Your task to perform on an android device: open a new tab in the chrome app Image 0: 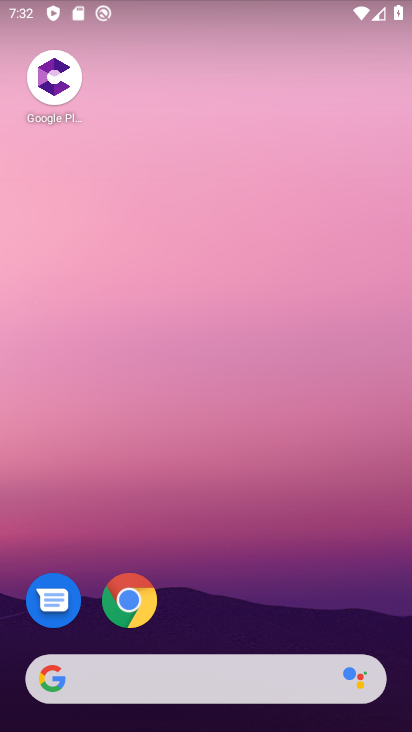
Step 0: drag from (197, 645) to (184, 103)
Your task to perform on an android device: open a new tab in the chrome app Image 1: 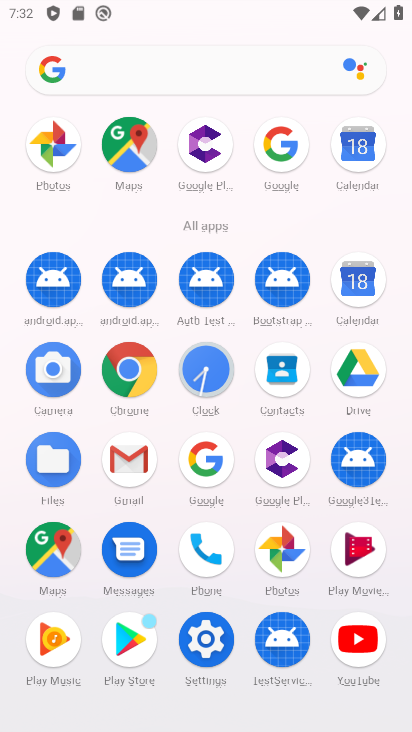
Step 1: click (130, 387)
Your task to perform on an android device: open a new tab in the chrome app Image 2: 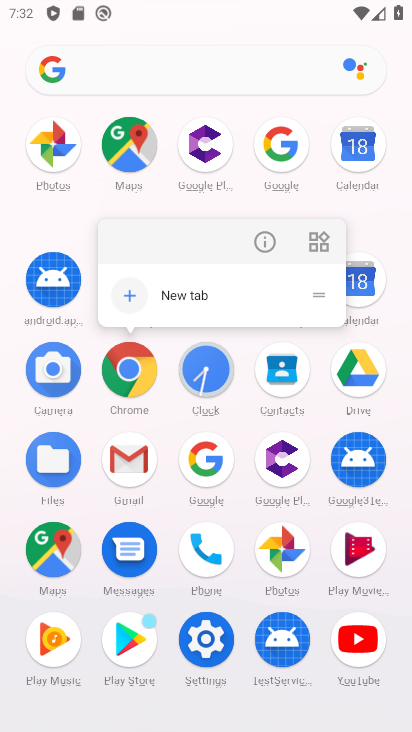
Step 2: click (133, 384)
Your task to perform on an android device: open a new tab in the chrome app Image 3: 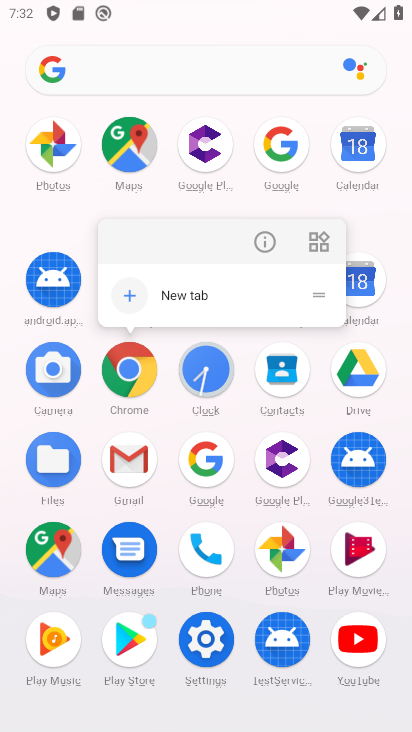
Step 3: click (133, 384)
Your task to perform on an android device: open a new tab in the chrome app Image 4: 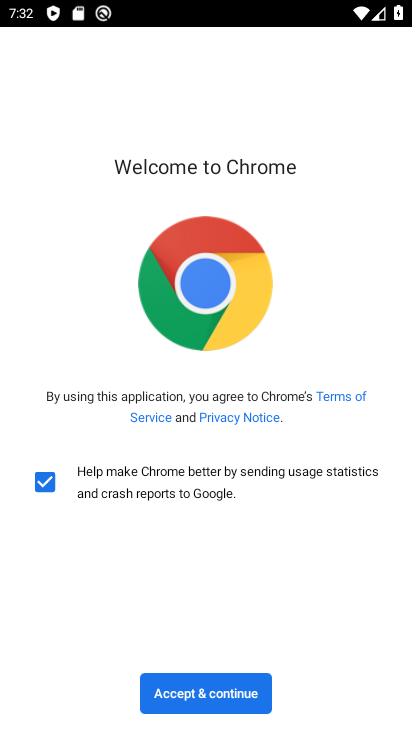
Step 4: click (169, 679)
Your task to perform on an android device: open a new tab in the chrome app Image 5: 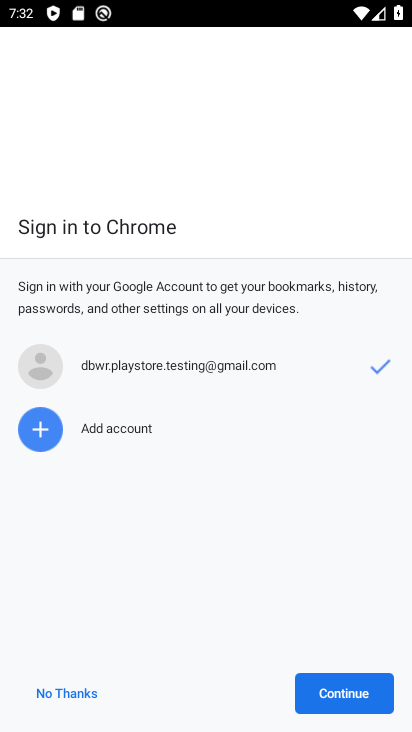
Step 5: click (341, 694)
Your task to perform on an android device: open a new tab in the chrome app Image 6: 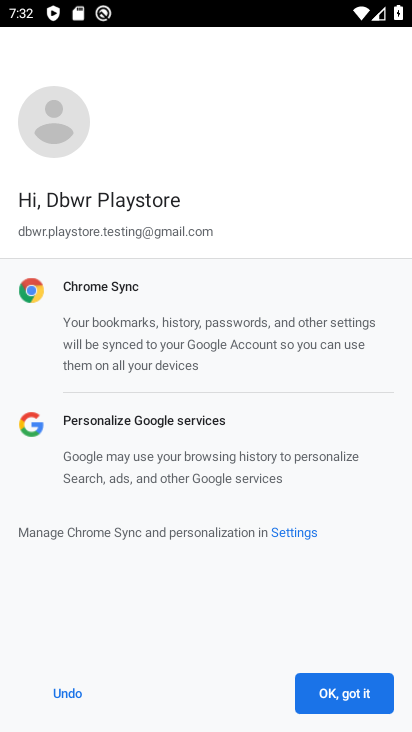
Step 6: click (305, 688)
Your task to perform on an android device: open a new tab in the chrome app Image 7: 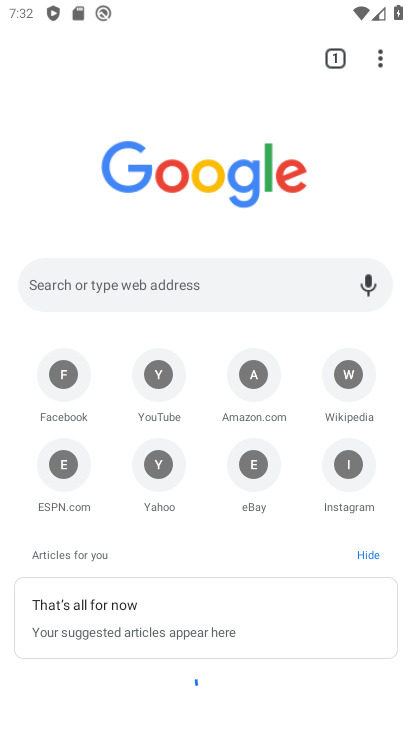
Step 7: click (334, 58)
Your task to perform on an android device: open a new tab in the chrome app Image 8: 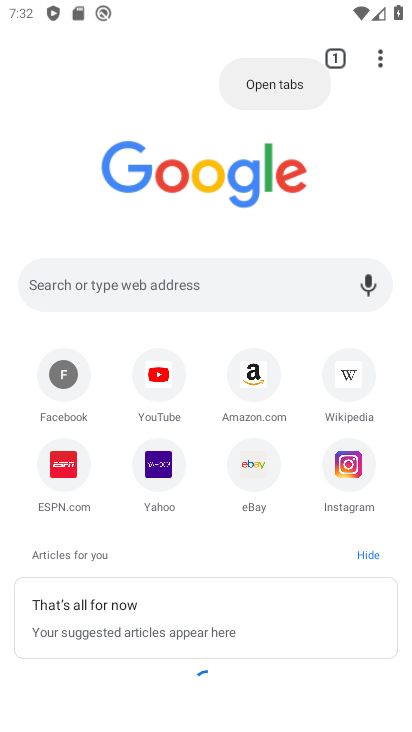
Step 8: click (335, 56)
Your task to perform on an android device: open a new tab in the chrome app Image 9: 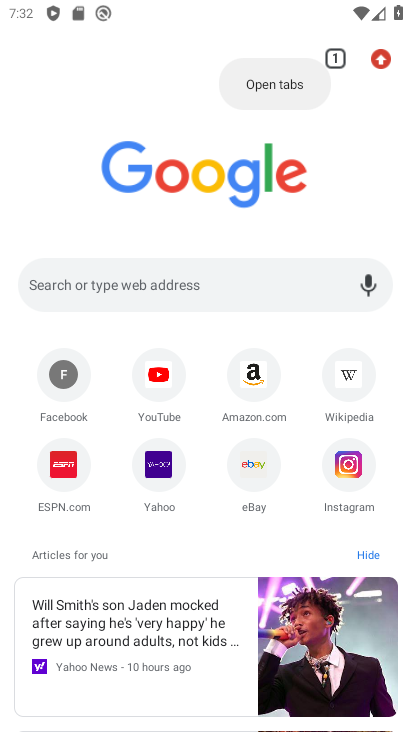
Step 9: click (332, 53)
Your task to perform on an android device: open a new tab in the chrome app Image 10: 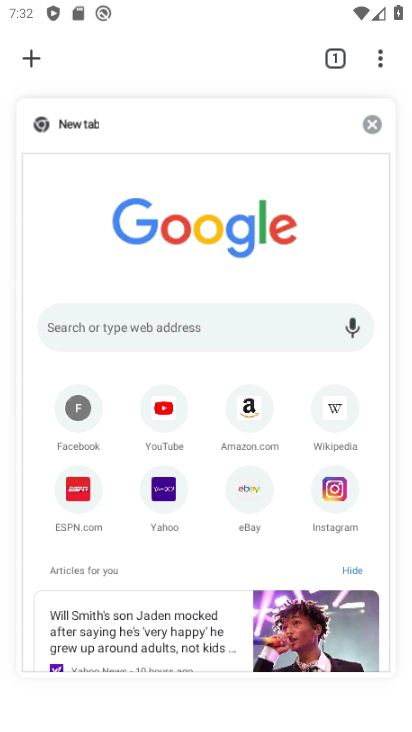
Step 10: click (27, 52)
Your task to perform on an android device: open a new tab in the chrome app Image 11: 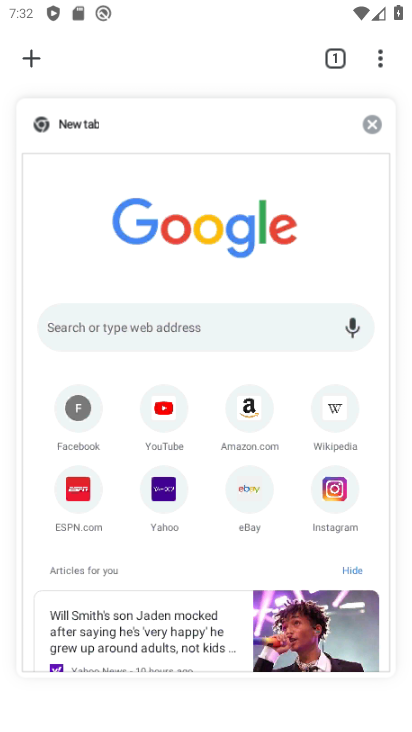
Step 11: click (26, 51)
Your task to perform on an android device: open a new tab in the chrome app Image 12: 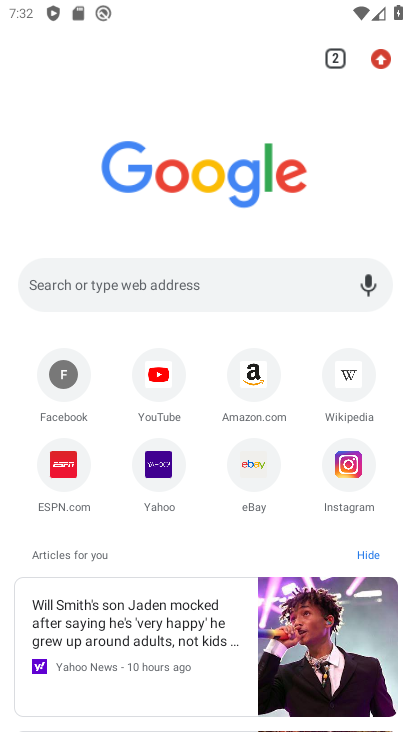
Step 12: task complete